Your task to perform on an android device: add a contact in the contacts app Image 0: 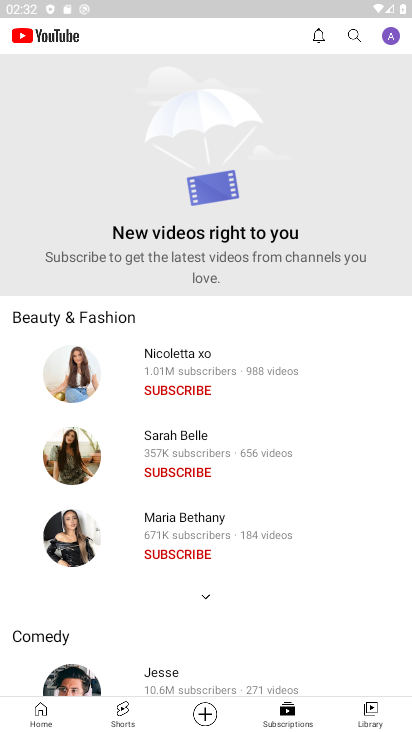
Step 0: press home button
Your task to perform on an android device: add a contact in the contacts app Image 1: 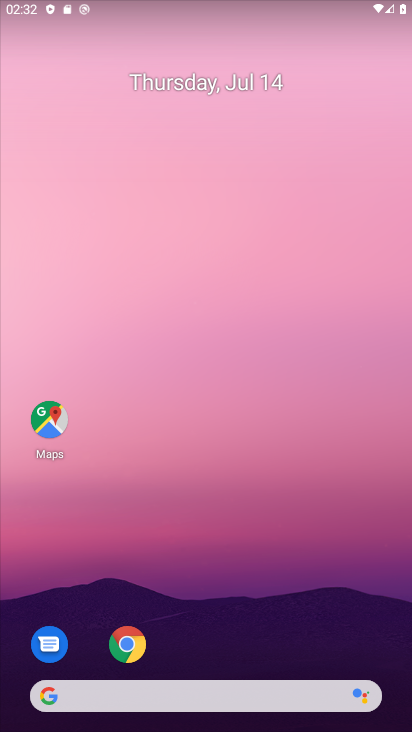
Step 1: drag from (250, 627) to (204, 206)
Your task to perform on an android device: add a contact in the contacts app Image 2: 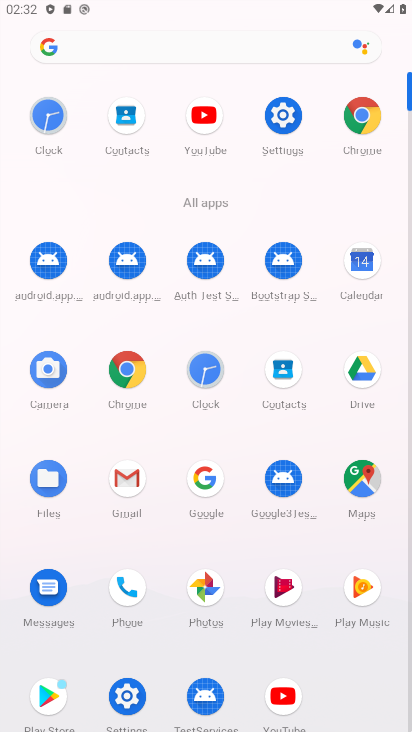
Step 2: click (285, 364)
Your task to perform on an android device: add a contact in the contacts app Image 3: 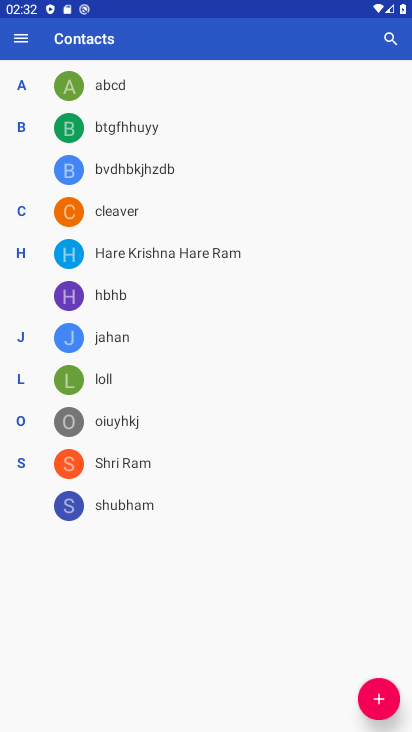
Step 3: click (372, 706)
Your task to perform on an android device: add a contact in the contacts app Image 4: 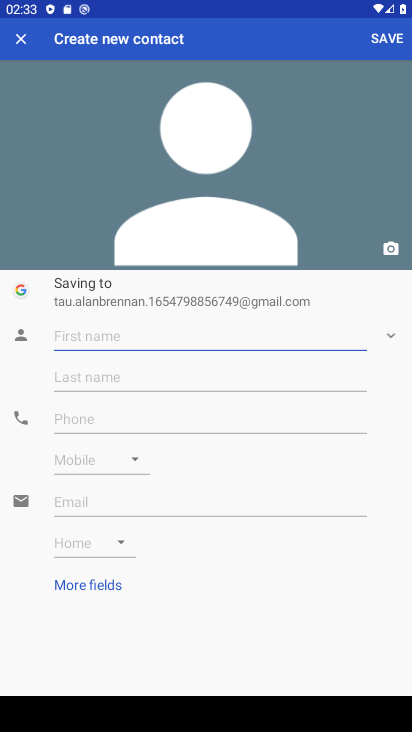
Step 4: click (187, 343)
Your task to perform on an android device: add a contact in the contacts app Image 5: 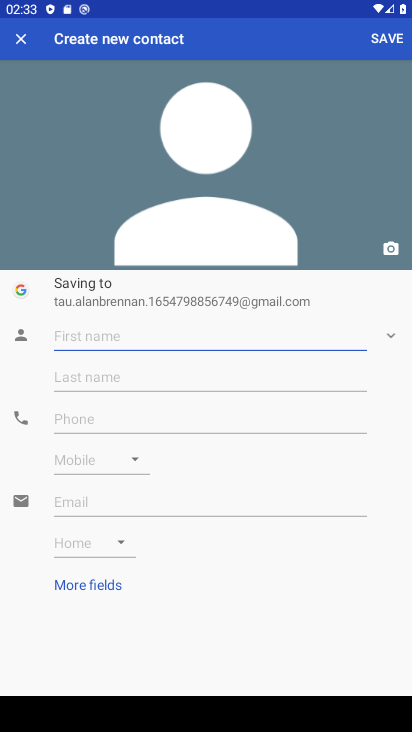
Step 5: type ""
Your task to perform on an android device: add a contact in the contacts app Image 6: 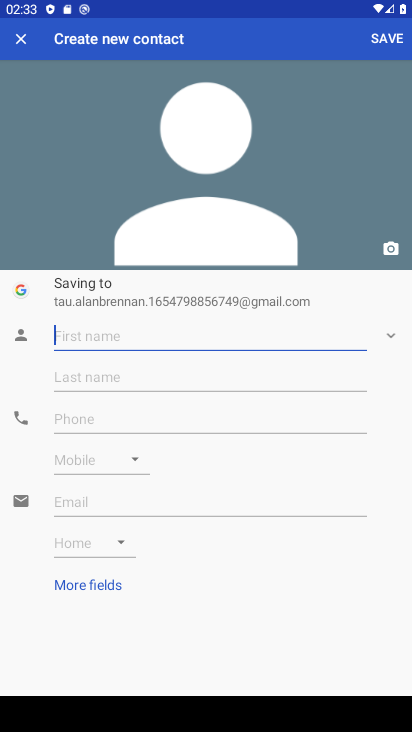
Step 6: type "gcgvgvhg"
Your task to perform on an android device: add a contact in the contacts app Image 7: 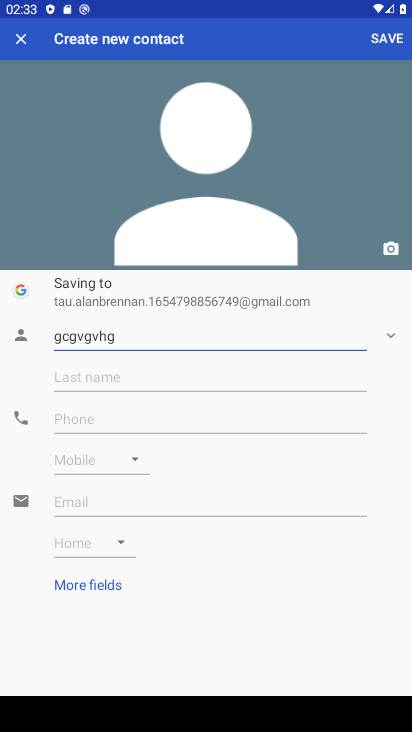
Step 7: click (180, 427)
Your task to perform on an android device: add a contact in the contacts app Image 8: 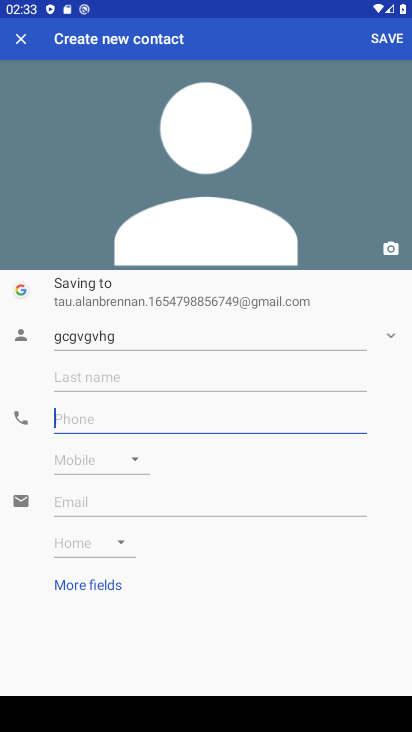
Step 8: type "87678678"
Your task to perform on an android device: add a contact in the contacts app Image 9: 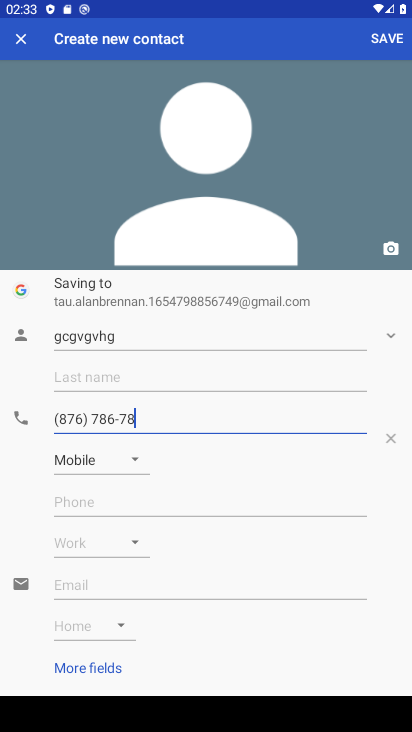
Step 9: click (402, 36)
Your task to perform on an android device: add a contact in the contacts app Image 10: 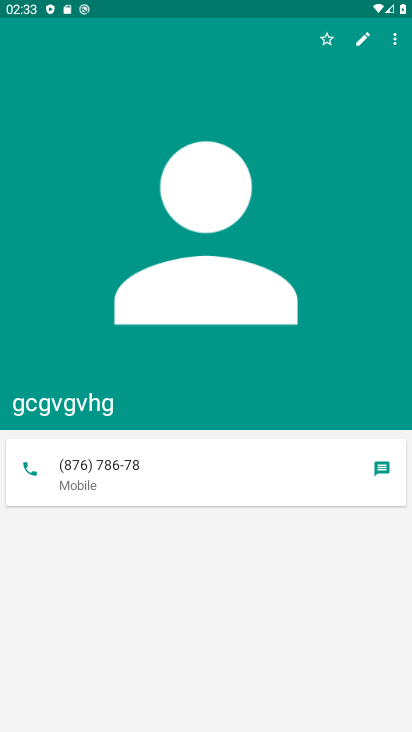
Step 10: task complete